Your task to perform on an android device: turn on sleep mode Image 0: 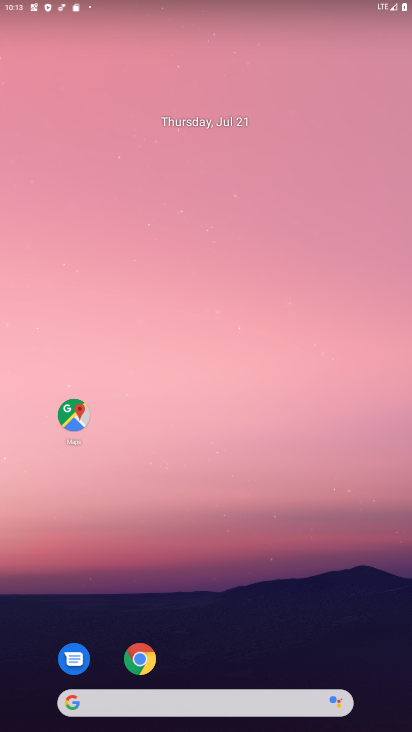
Step 0: drag from (316, 541) to (311, 162)
Your task to perform on an android device: turn on sleep mode Image 1: 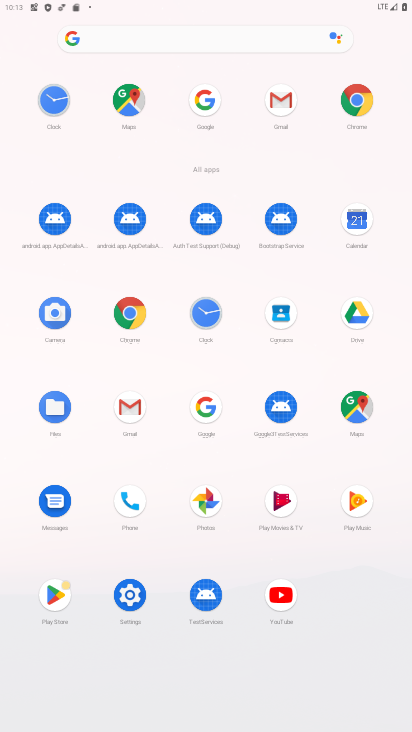
Step 1: click (205, 315)
Your task to perform on an android device: turn on sleep mode Image 2: 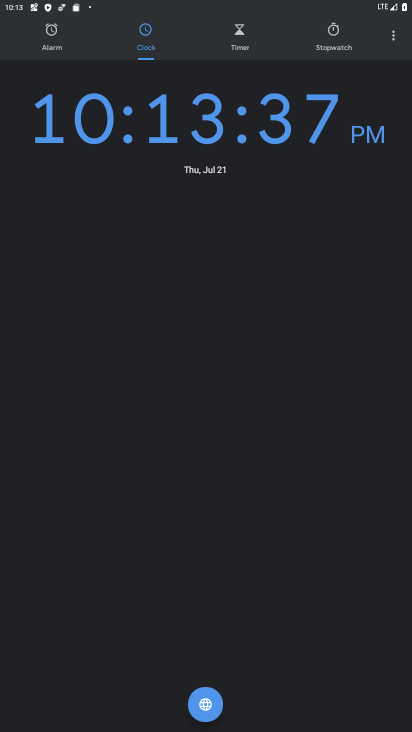
Step 2: click (404, 40)
Your task to perform on an android device: turn on sleep mode Image 3: 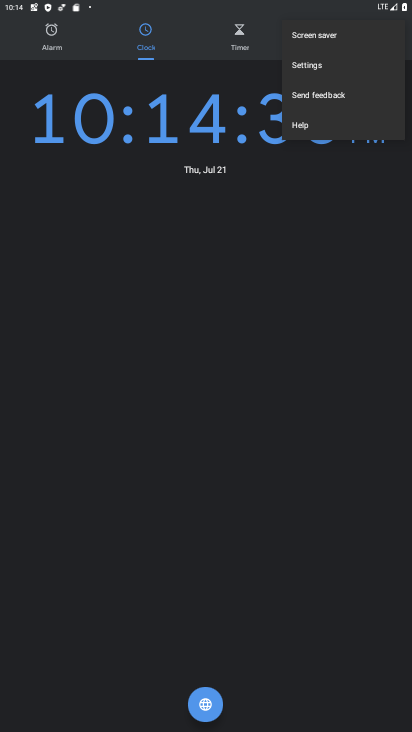
Step 3: press home button
Your task to perform on an android device: turn on sleep mode Image 4: 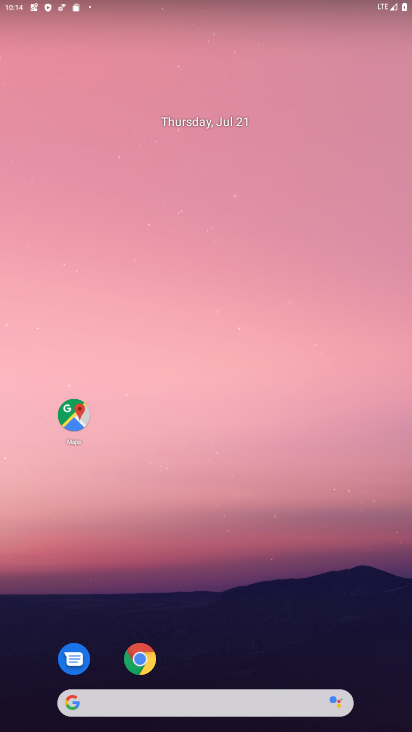
Step 4: drag from (276, 641) to (310, 92)
Your task to perform on an android device: turn on sleep mode Image 5: 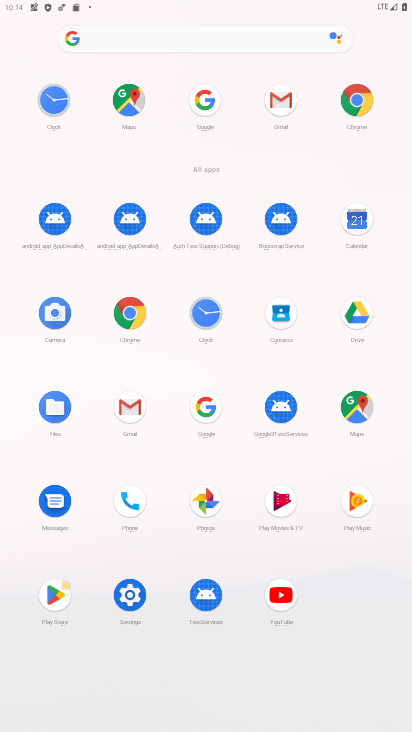
Step 5: click (127, 594)
Your task to perform on an android device: turn on sleep mode Image 6: 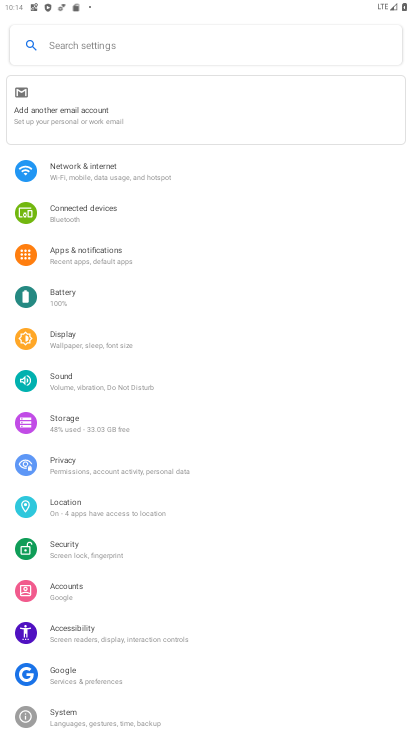
Step 6: click (80, 353)
Your task to perform on an android device: turn on sleep mode Image 7: 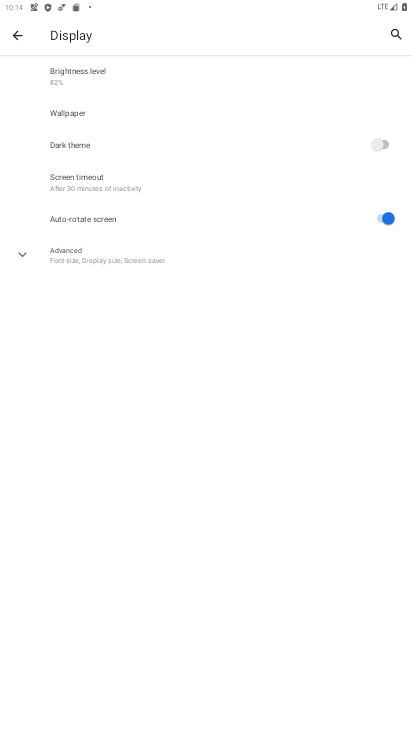
Step 7: click (159, 185)
Your task to perform on an android device: turn on sleep mode Image 8: 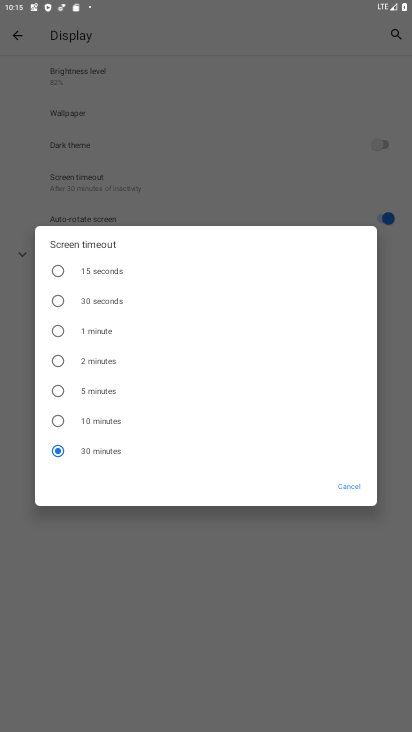
Step 8: task complete